Your task to perform on an android device: delete a single message in the gmail app Image 0: 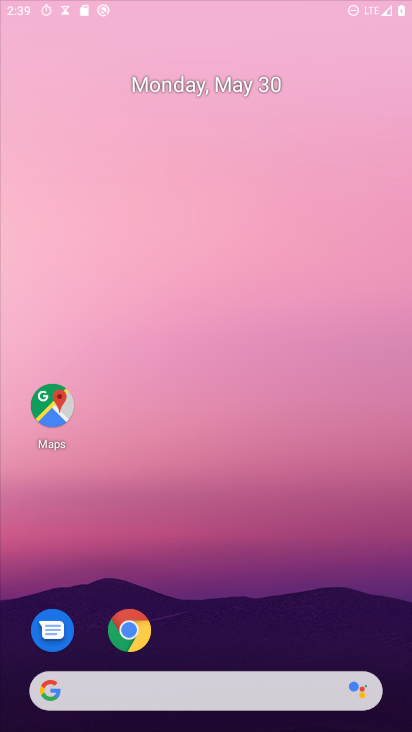
Step 0: drag from (312, 725) to (269, 194)
Your task to perform on an android device: delete a single message in the gmail app Image 1: 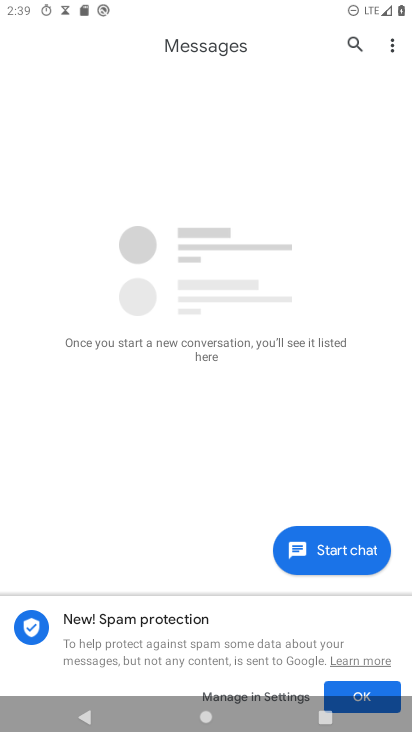
Step 1: press home button
Your task to perform on an android device: delete a single message in the gmail app Image 2: 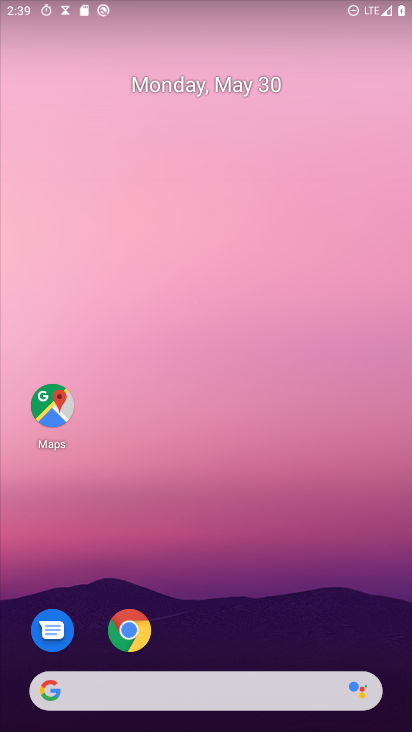
Step 2: drag from (230, 697) to (243, 134)
Your task to perform on an android device: delete a single message in the gmail app Image 3: 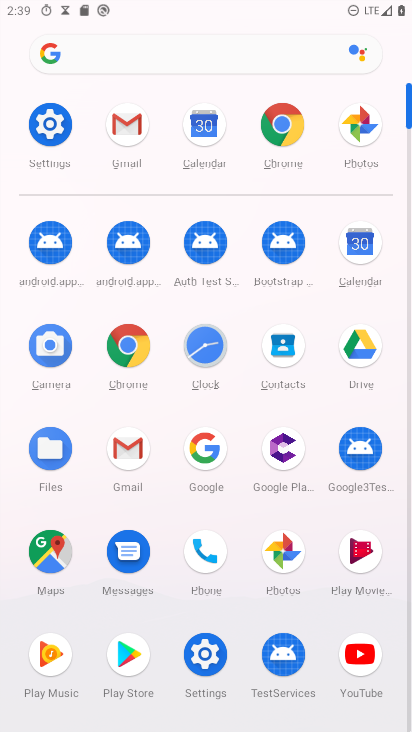
Step 3: click (137, 137)
Your task to perform on an android device: delete a single message in the gmail app Image 4: 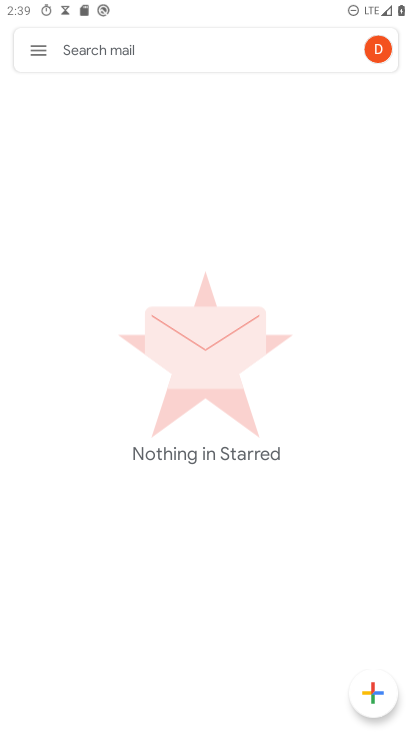
Step 4: click (39, 43)
Your task to perform on an android device: delete a single message in the gmail app Image 5: 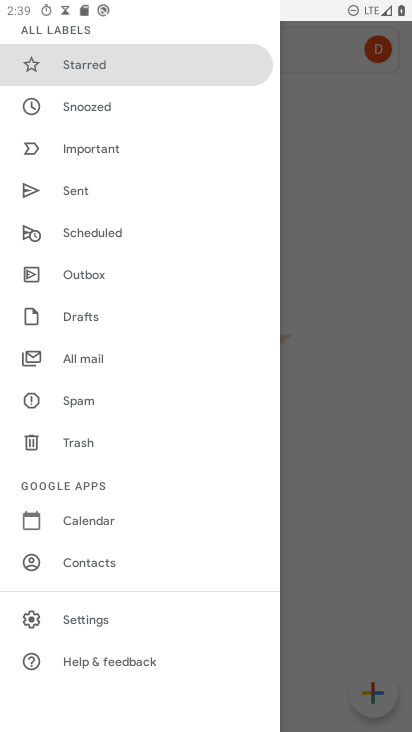
Step 5: click (102, 344)
Your task to perform on an android device: delete a single message in the gmail app Image 6: 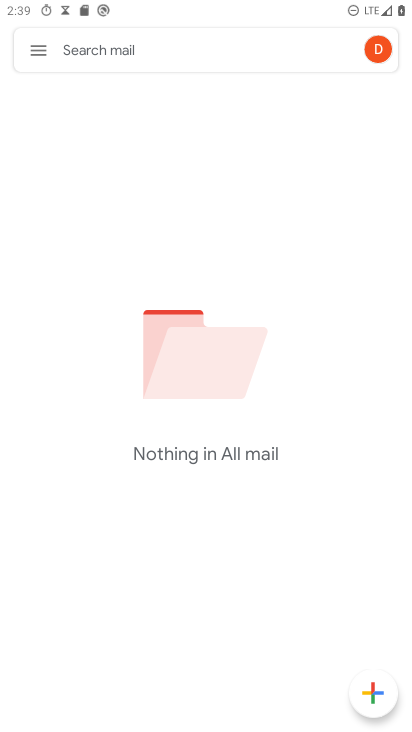
Step 6: task complete